Your task to perform on an android device: What's the weather going to be tomorrow? Image 0: 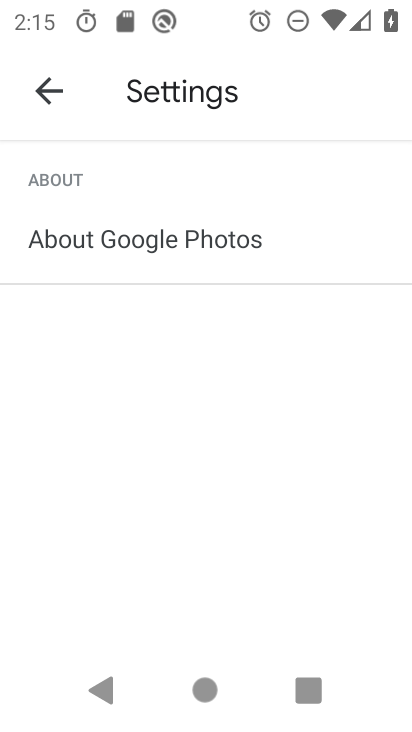
Step 0: press home button
Your task to perform on an android device: What's the weather going to be tomorrow? Image 1: 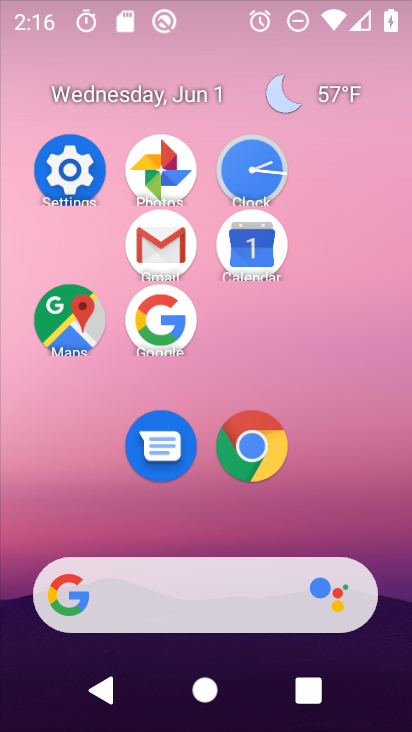
Step 1: click (48, 158)
Your task to perform on an android device: What's the weather going to be tomorrow? Image 2: 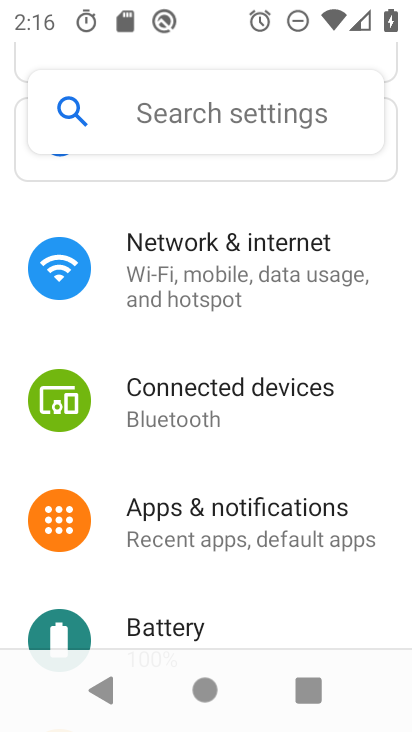
Step 2: press home button
Your task to perform on an android device: What's the weather going to be tomorrow? Image 3: 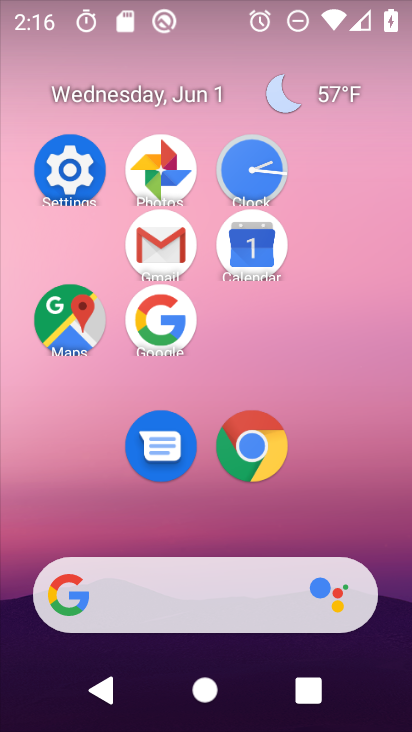
Step 3: click (175, 309)
Your task to perform on an android device: What's the weather going to be tomorrow? Image 4: 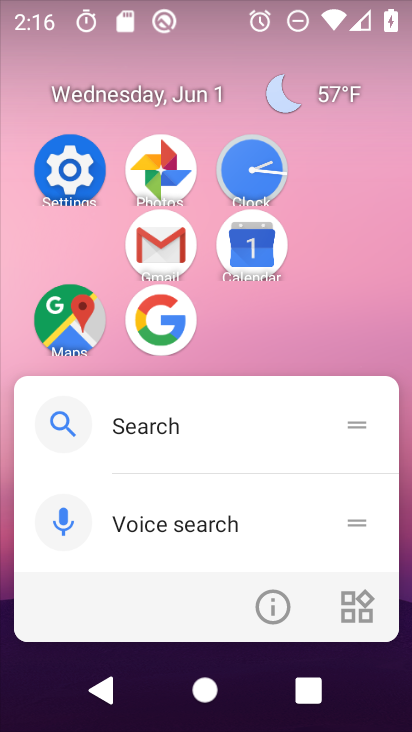
Step 4: click (175, 309)
Your task to perform on an android device: What's the weather going to be tomorrow? Image 5: 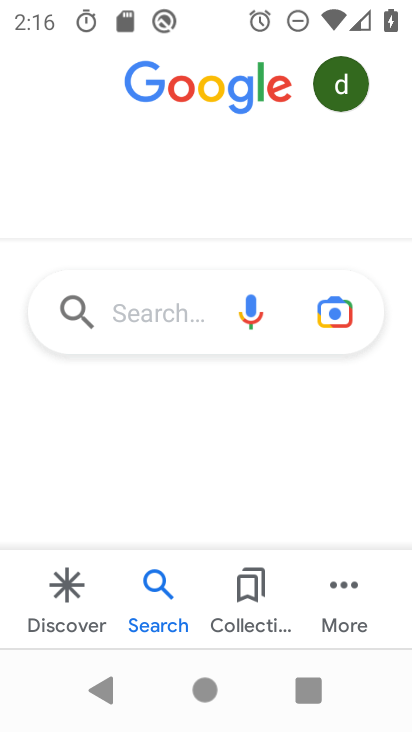
Step 5: click (149, 315)
Your task to perform on an android device: What's the weather going to be tomorrow? Image 6: 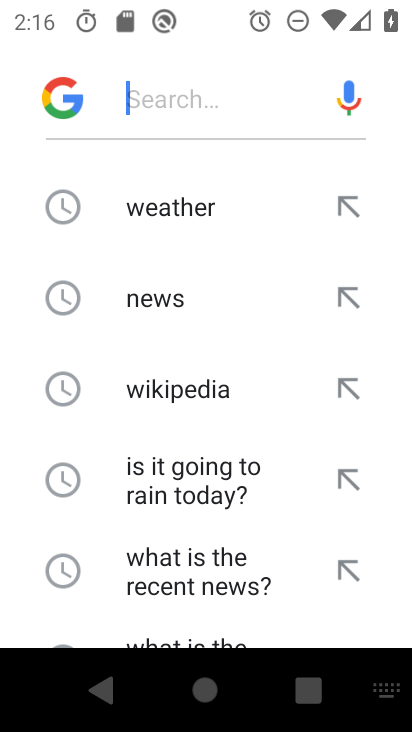
Step 6: click (185, 204)
Your task to perform on an android device: What's the weather going to be tomorrow? Image 7: 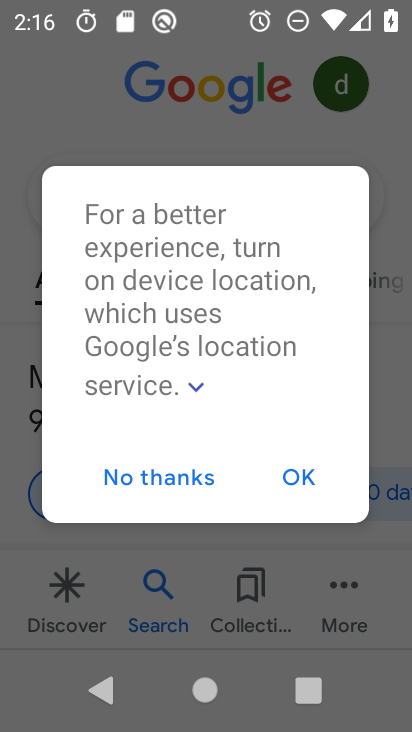
Step 7: click (320, 470)
Your task to perform on an android device: What's the weather going to be tomorrow? Image 8: 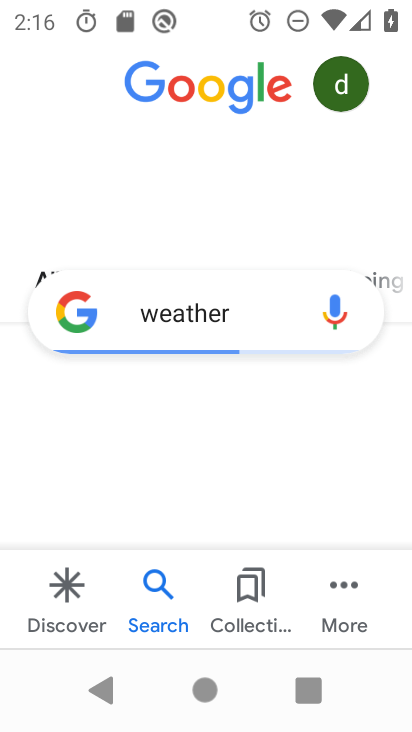
Step 8: click (274, 490)
Your task to perform on an android device: What's the weather going to be tomorrow? Image 9: 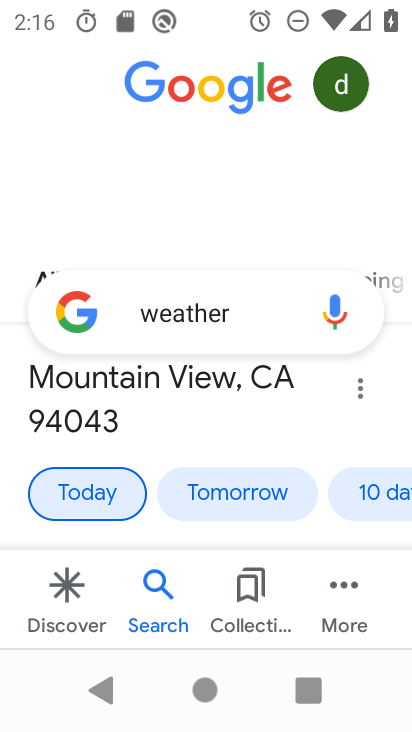
Step 9: click (274, 490)
Your task to perform on an android device: What's the weather going to be tomorrow? Image 10: 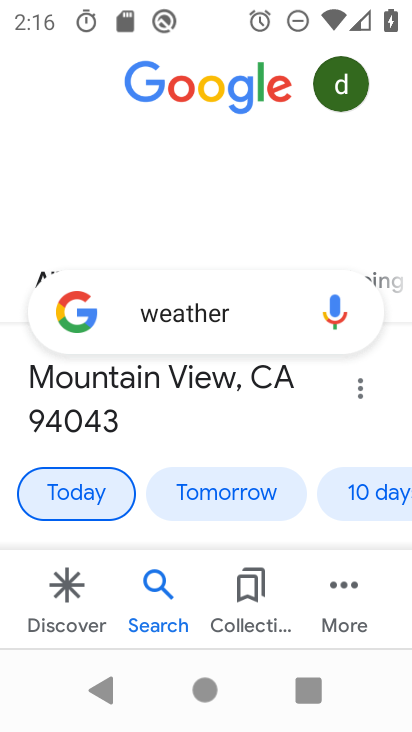
Step 10: click (229, 486)
Your task to perform on an android device: What's the weather going to be tomorrow? Image 11: 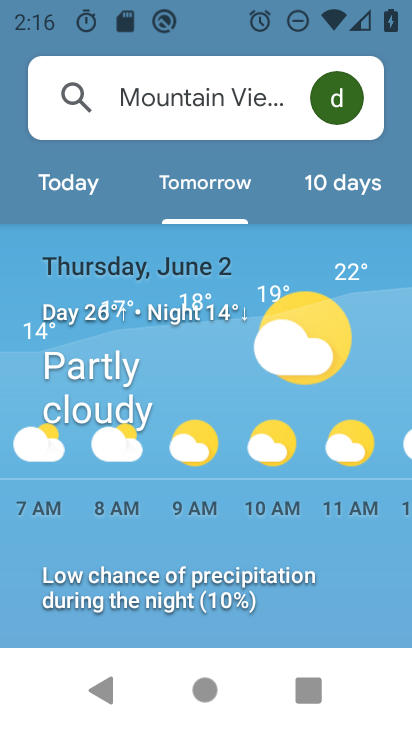
Step 11: task complete